Your task to perform on an android device: Open CNN.com Image 0: 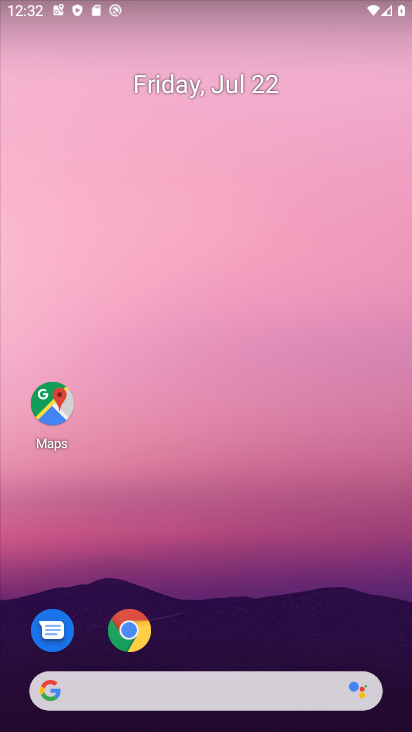
Step 0: click (122, 635)
Your task to perform on an android device: Open CNN.com Image 1: 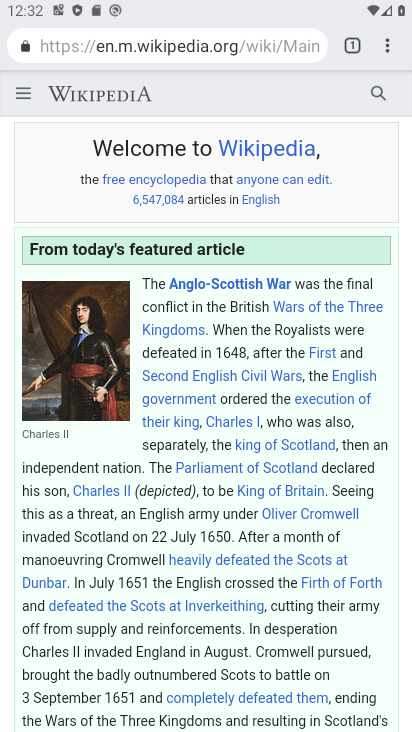
Step 1: click (274, 38)
Your task to perform on an android device: Open CNN.com Image 2: 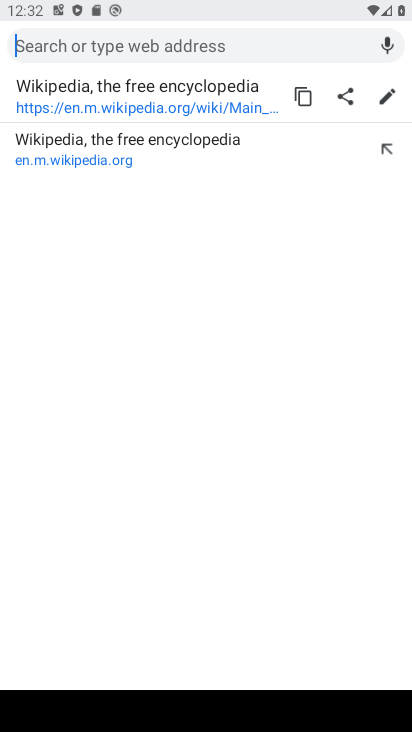
Step 2: type "CNN.com"
Your task to perform on an android device: Open CNN.com Image 3: 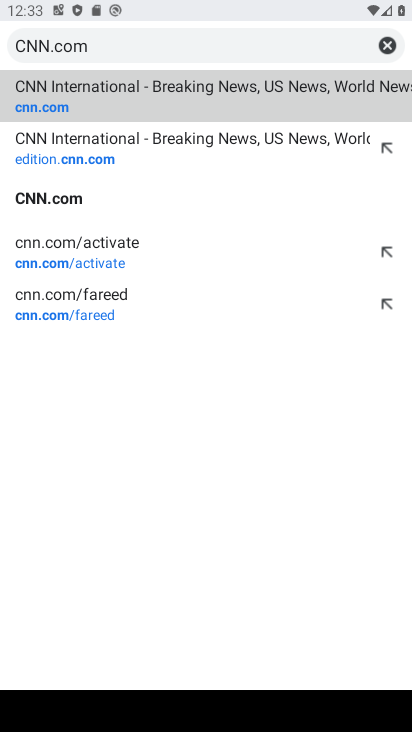
Step 3: click (171, 89)
Your task to perform on an android device: Open CNN.com Image 4: 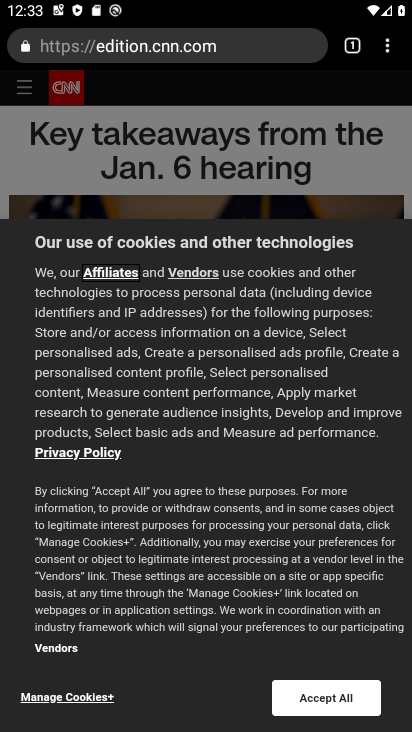
Step 4: task complete